Your task to perform on an android device: create a new album in the google photos Image 0: 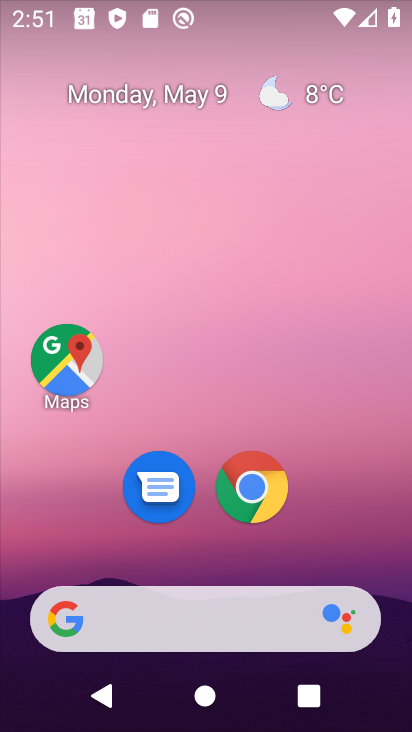
Step 0: drag from (209, 565) to (186, 174)
Your task to perform on an android device: create a new album in the google photos Image 1: 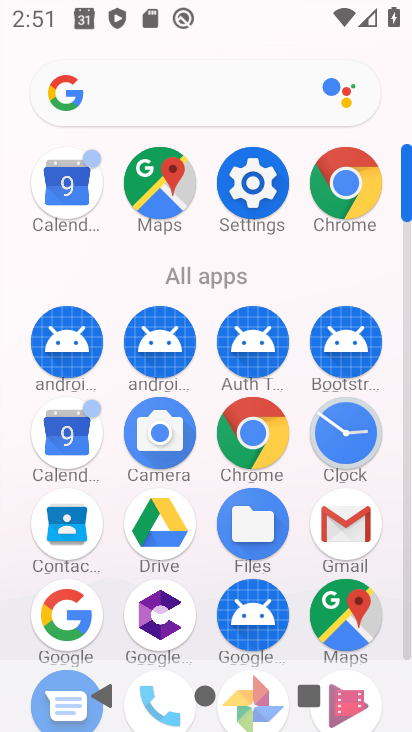
Step 1: drag from (205, 575) to (193, 215)
Your task to perform on an android device: create a new album in the google photos Image 2: 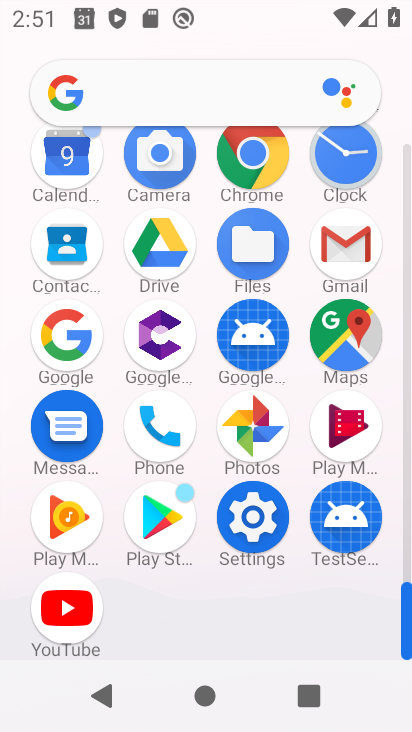
Step 2: click (253, 417)
Your task to perform on an android device: create a new album in the google photos Image 3: 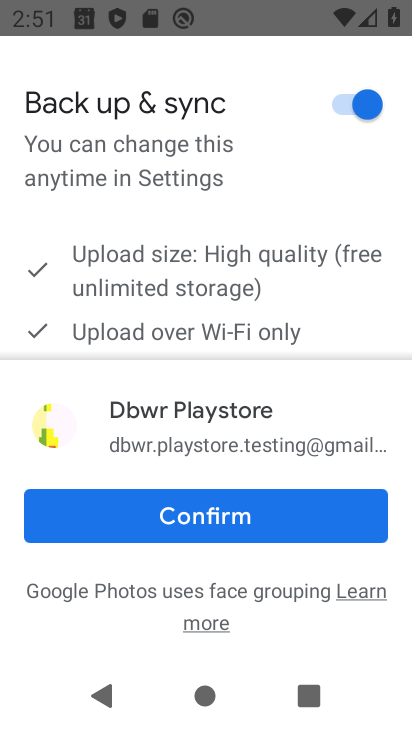
Step 3: click (209, 517)
Your task to perform on an android device: create a new album in the google photos Image 4: 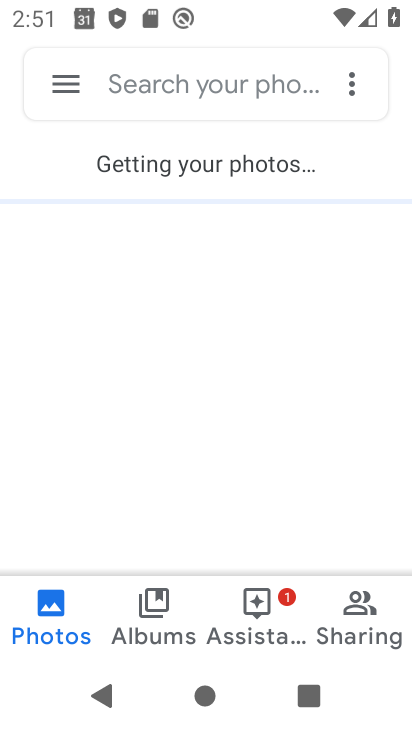
Step 4: click (151, 608)
Your task to perform on an android device: create a new album in the google photos Image 5: 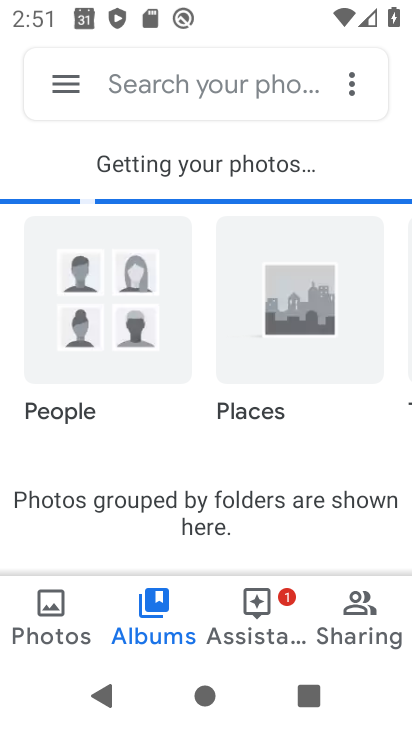
Step 5: click (349, 76)
Your task to perform on an android device: create a new album in the google photos Image 6: 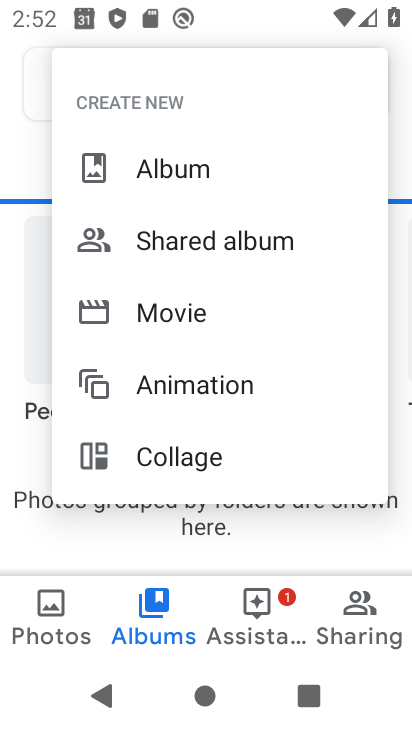
Step 6: click (216, 168)
Your task to perform on an android device: create a new album in the google photos Image 7: 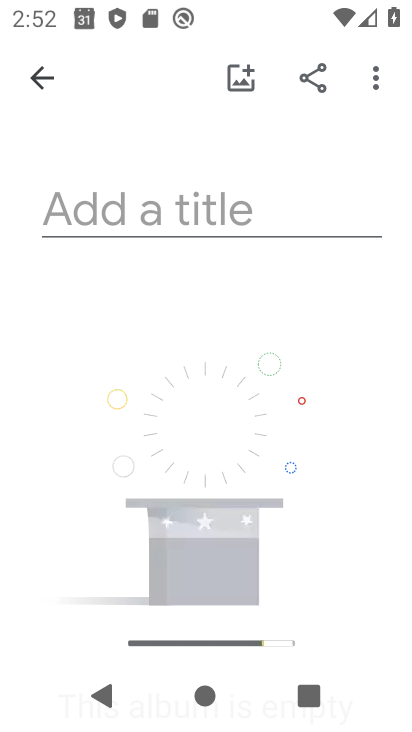
Step 7: drag from (219, 564) to (211, 210)
Your task to perform on an android device: create a new album in the google photos Image 8: 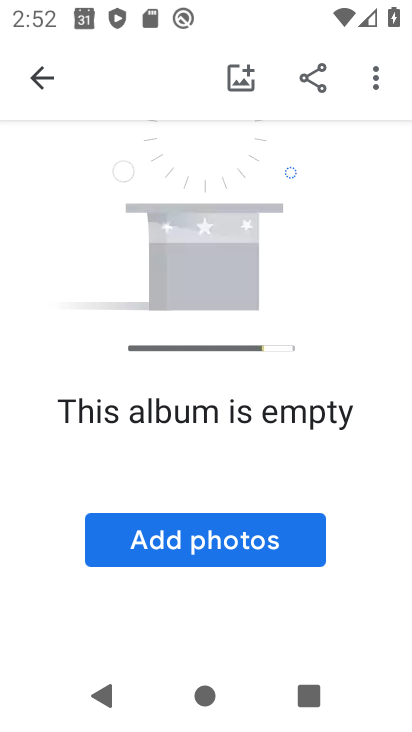
Step 8: click (213, 536)
Your task to perform on an android device: create a new album in the google photos Image 9: 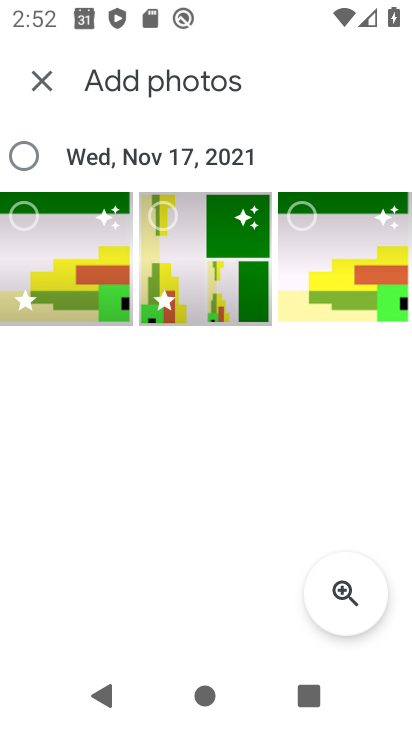
Step 9: click (20, 154)
Your task to perform on an android device: create a new album in the google photos Image 10: 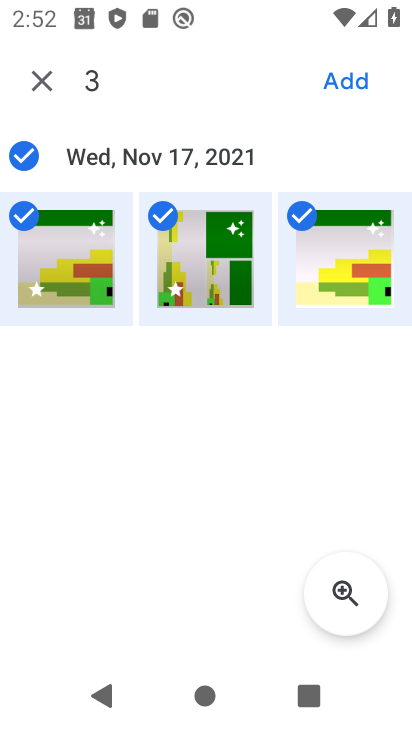
Step 10: click (345, 83)
Your task to perform on an android device: create a new album in the google photos Image 11: 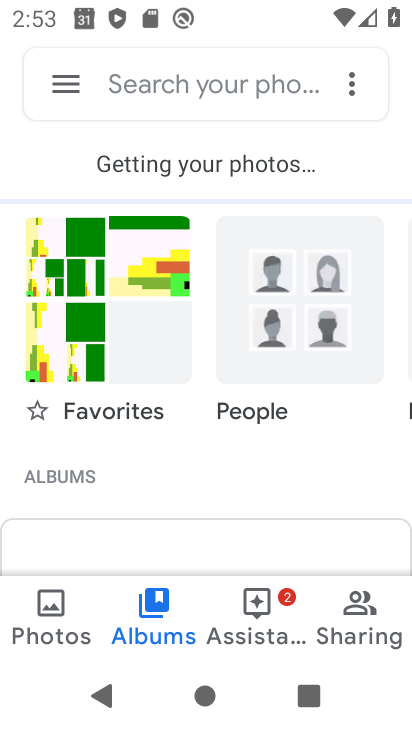
Step 11: click (353, 79)
Your task to perform on an android device: create a new album in the google photos Image 12: 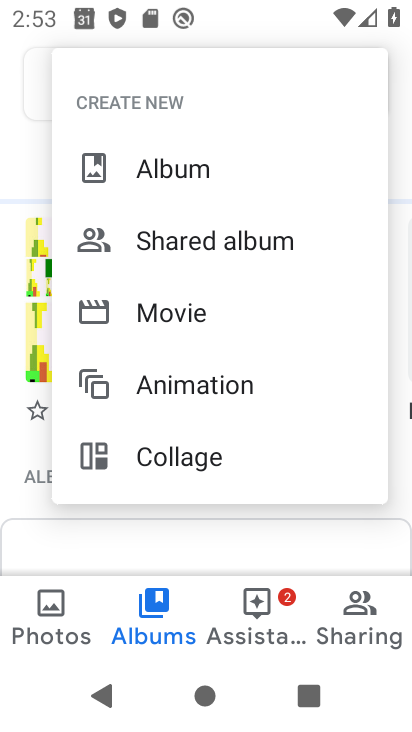
Step 12: click (170, 170)
Your task to perform on an android device: create a new album in the google photos Image 13: 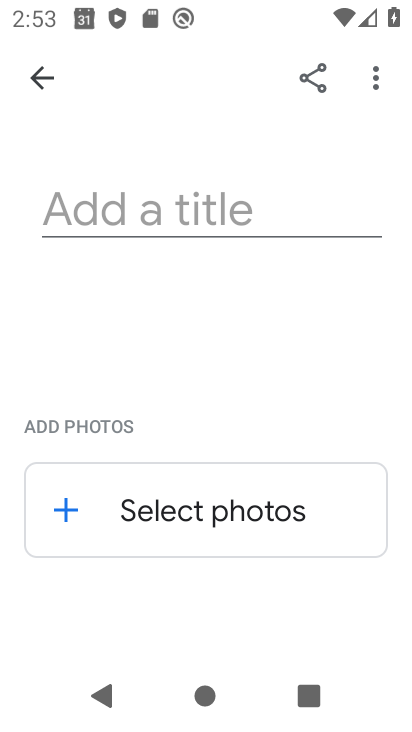
Step 13: click (120, 519)
Your task to perform on an android device: create a new album in the google photos Image 14: 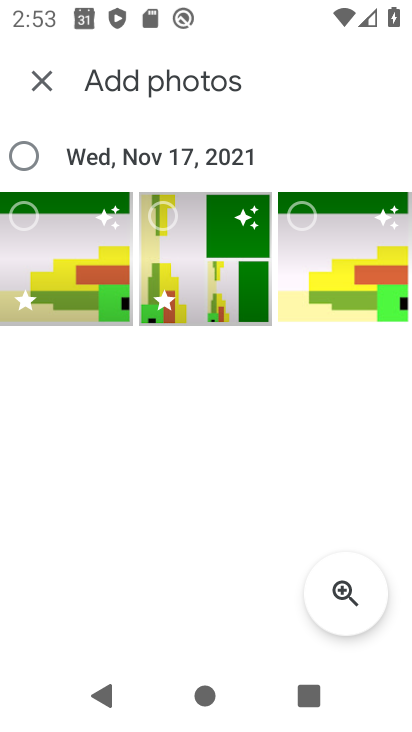
Step 14: click (16, 156)
Your task to perform on an android device: create a new album in the google photos Image 15: 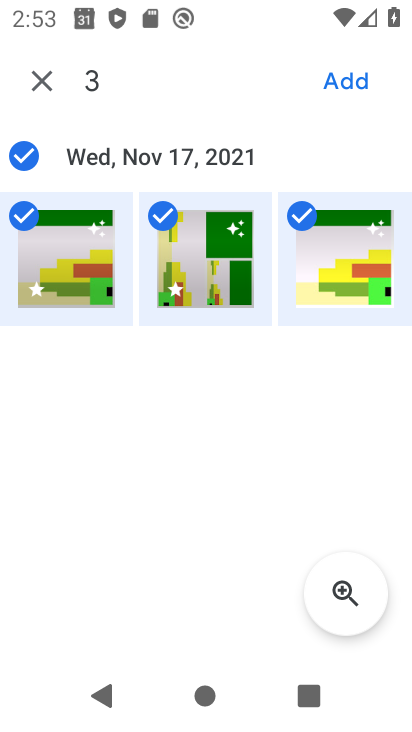
Step 15: click (348, 82)
Your task to perform on an android device: create a new album in the google photos Image 16: 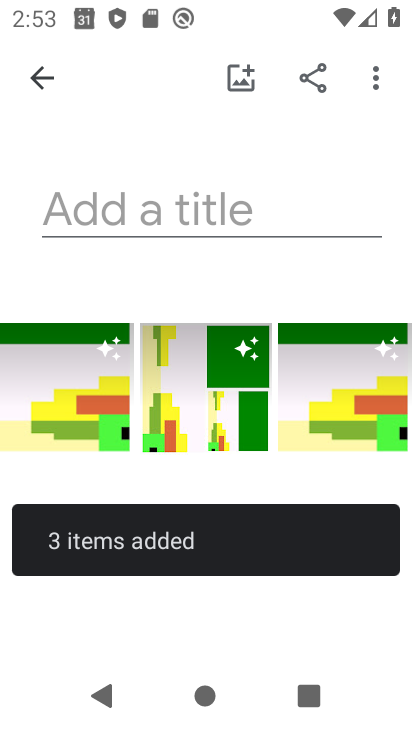
Step 16: click (141, 197)
Your task to perform on an android device: create a new album in the google photos Image 17: 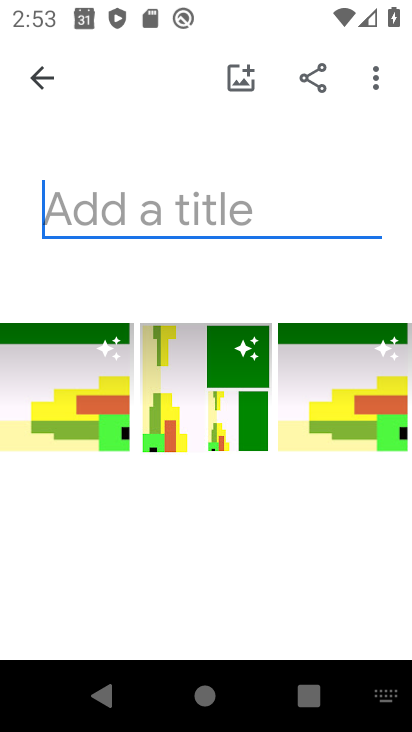
Step 17: type "ngfgfd"
Your task to perform on an android device: create a new album in the google photos Image 18: 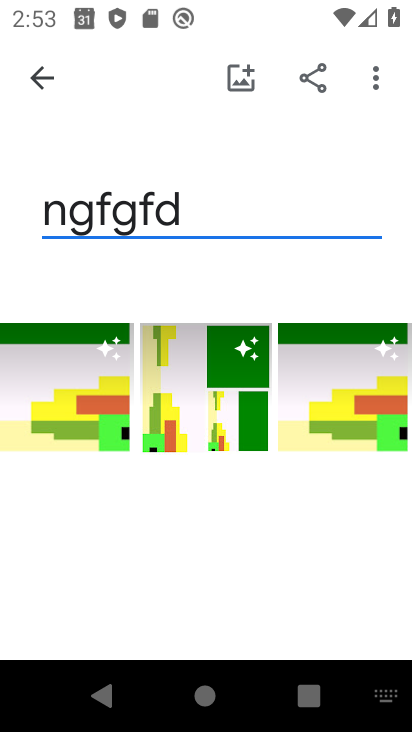
Step 18: click (271, 603)
Your task to perform on an android device: create a new album in the google photos Image 19: 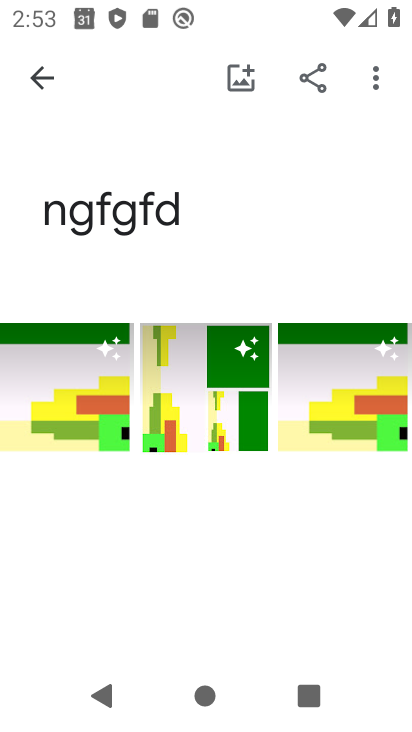
Step 19: task complete